Your task to perform on an android device: add a contact in the contacts app Image 0: 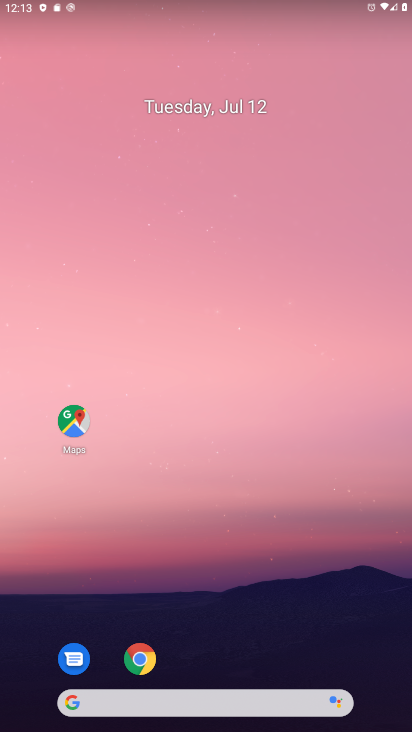
Step 0: drag from (177, 637) to (281, 0)
Your task to perform on an android device: add a contact in the contacts app Image 1: 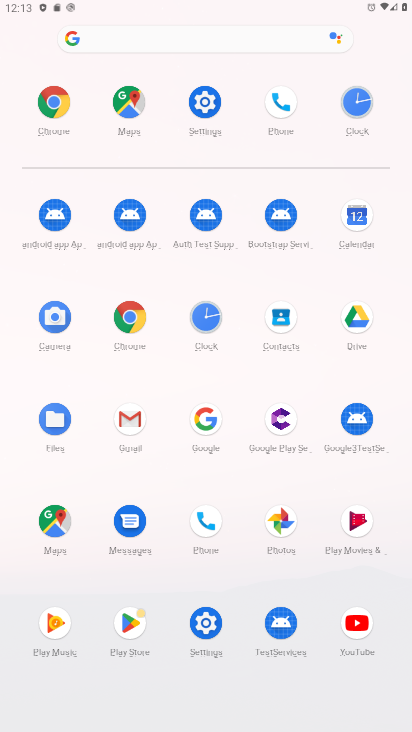
Step 1: click (274, 324)
Your task to perform on an android device: add a contact in the contacts app Image 2: 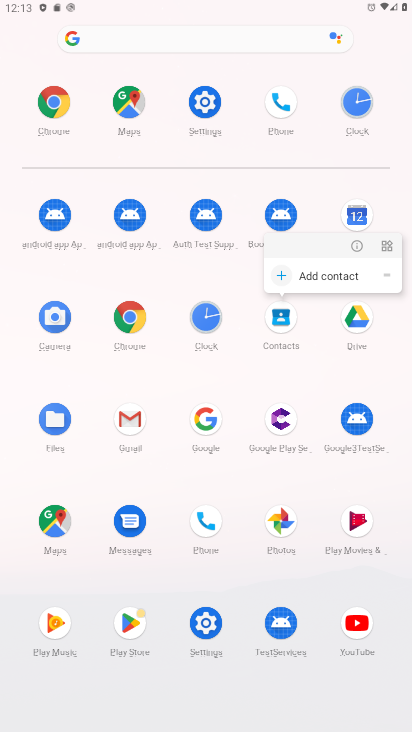
Step 2: click (361, 239)
Your task to perform on an android device: add a contact in the contacts app Image 3: 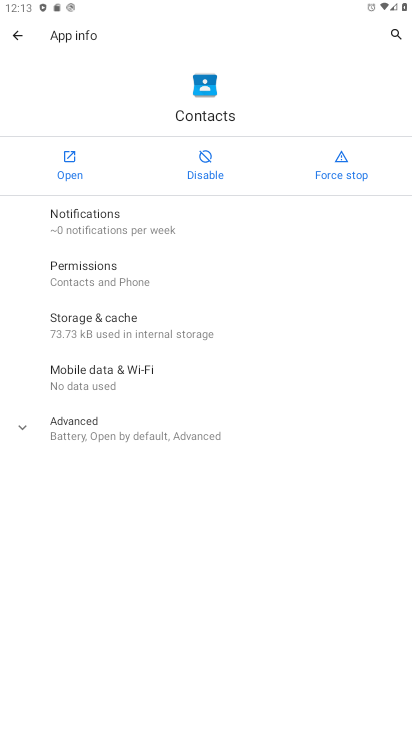
Step 3: click (77, 154)
Your task to perform on an android device: add a contact in the contacts app Image 4: 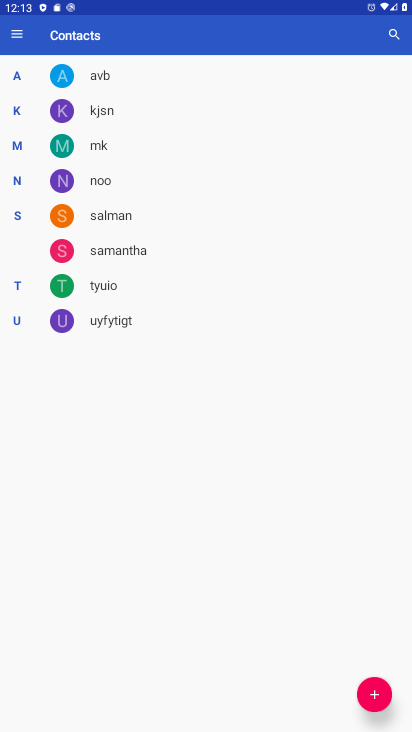
Step 4: click (369, 705)
Your task to perform on an android device: add a contact in the contacts app Image 5: 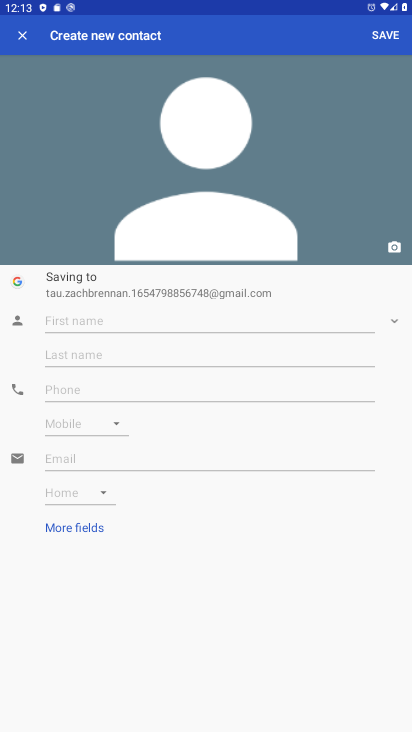
Step 5: click (152, 314)
Your task to perform on an android device: add a contact in the contacts app Image 6: 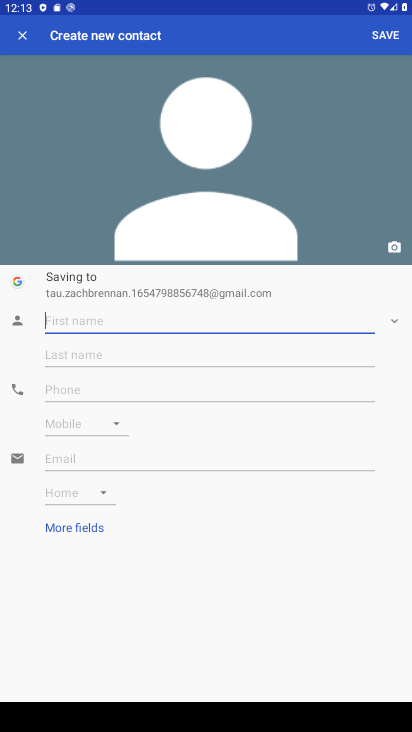
Step 6: type "kajsal"
Your task to perform on an android device: add a contact in the contacts app Image 7: 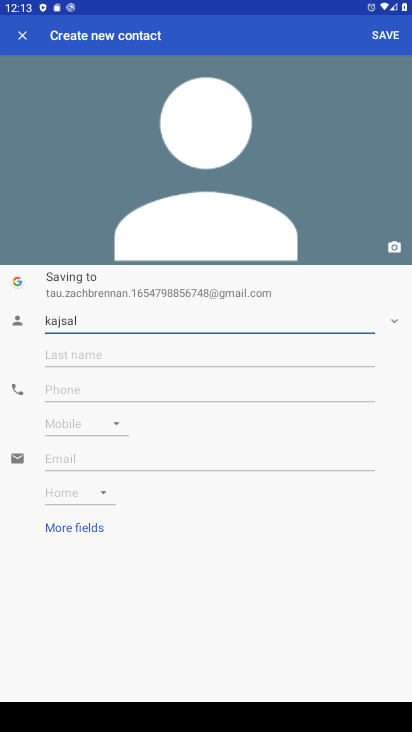
Step 7: click (391, 25)
Your task to perform on an android device: add a contact in the contacts app Image 8: 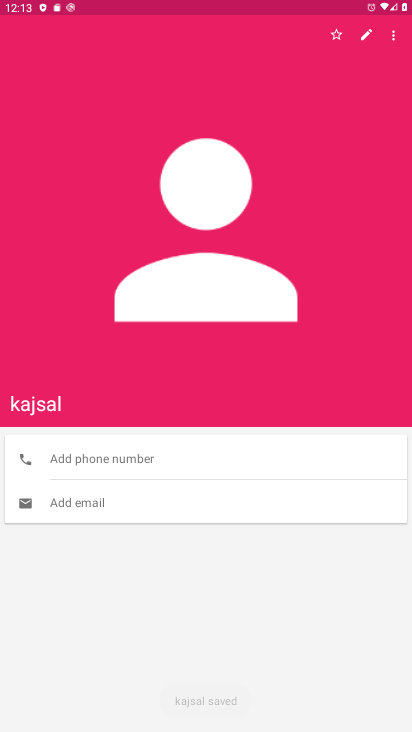
Step 8: task complete